Your task to perform on an android device: turn on priority inbox in the gmail app Image 0: 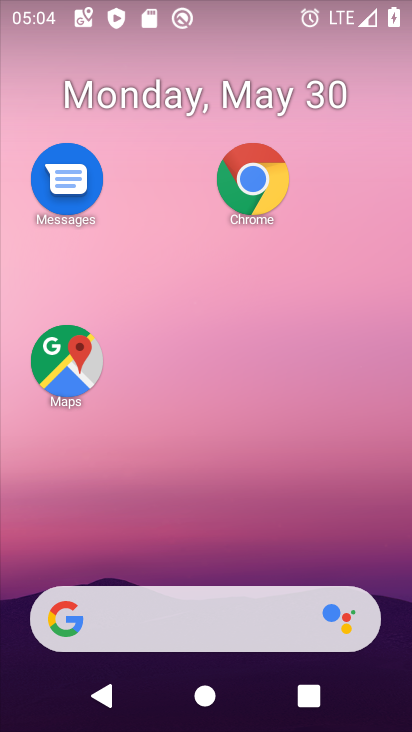
Step 0: drag from (178, 530) to (182, 34)
Your task to perform on an android device: turn on priority inbox in the gmail app Image 1: 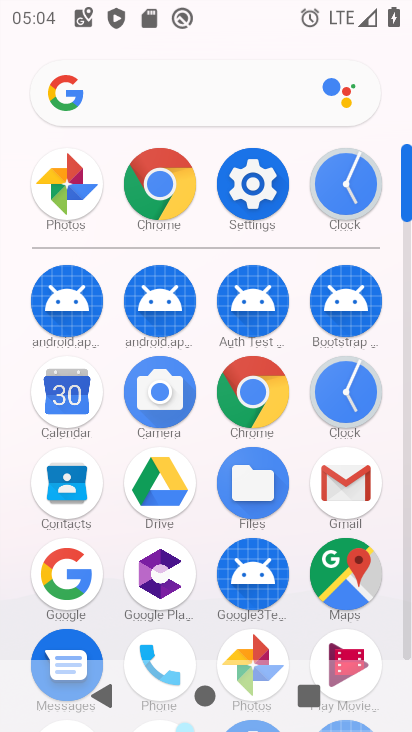
Step 1: click (354, 478)
Your task to perform on an android device: turn on priority inbox in the gmail app Image 2: 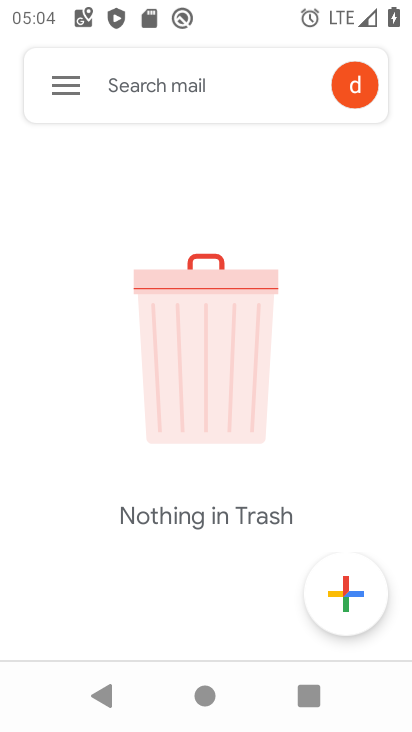
Step 2: click (69, 77)
Your task to perform on an android device: turn on priority inbox in the gmail app Image 3: 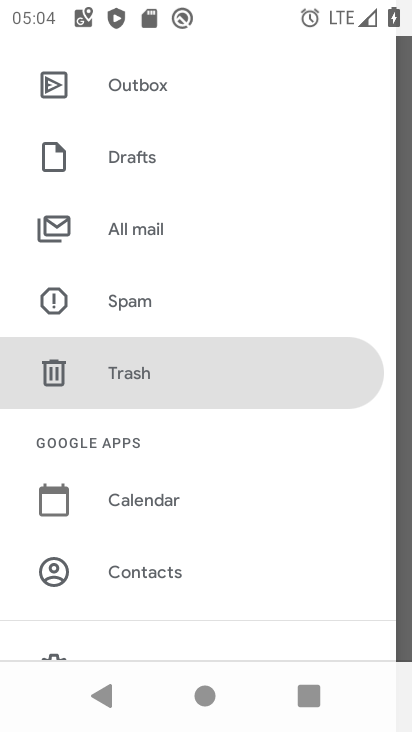
Step 3: drag from (191, 266) to (180, 685)
Your task to perform on an android device: turn on priority inbox in the gmail app Image 4: 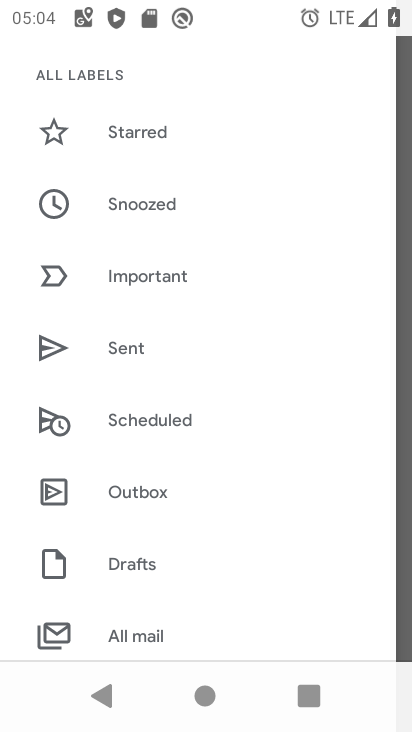
Step 4: drag from (183, 627) to (162, 293)
Your task to perform on an android device: turn on priority inbox in the gmail app Image 5: 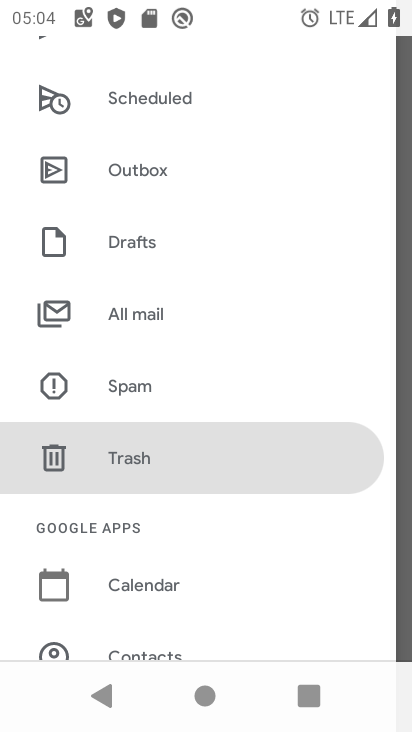
Step 5: drag from (161, 604) to (215, 171)
Your task to perform on an android device: turn on priority inbox in the gmail app Image 6: 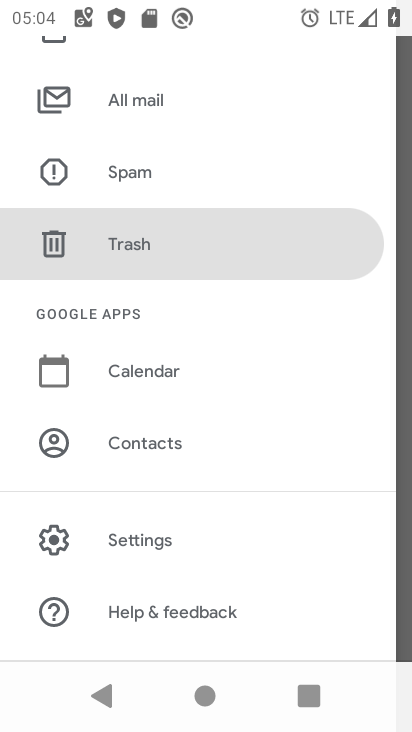
Step 6: click (148, 533)
Your task to perform on an android device: turn on priority inbox in the gmail app Image 7: 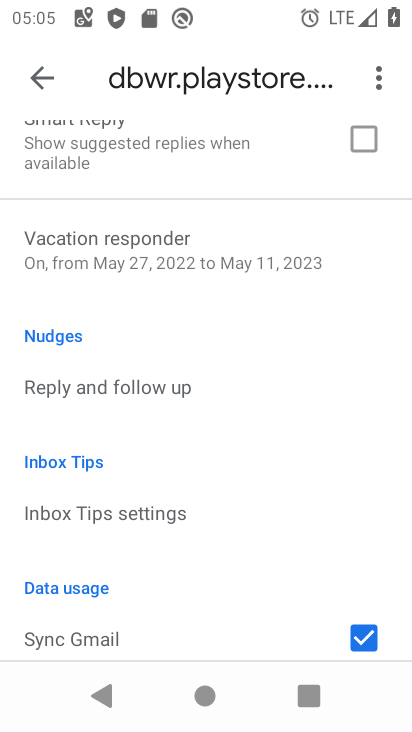
Step 7: drag from (123, 271) to (117, 719)
Your task to perform on an android device: turn on priority inbox in the gmail app Image 8: 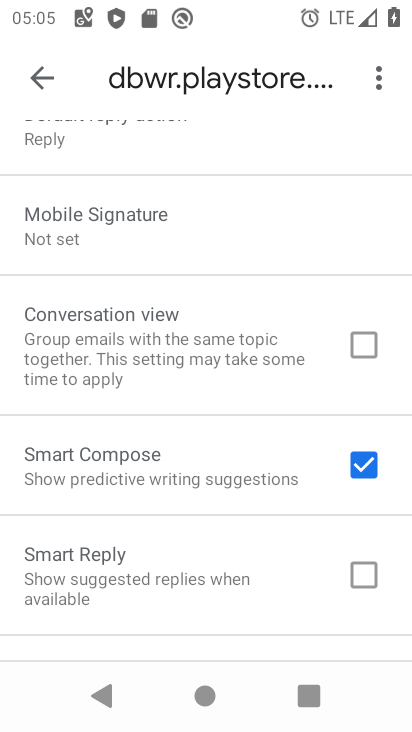
Step 8: drag from (206, 263) to (187, 728)
Your task to perform on an android device: turn on priority inbox in the gmail app Image 9: 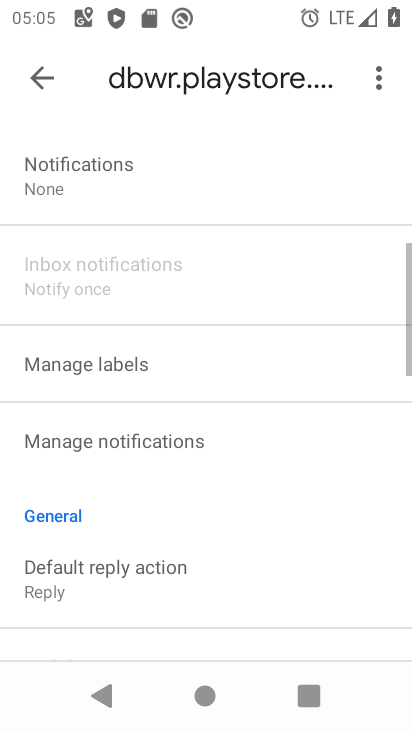
Step 9: drag from (155, 261) to (123, 721)
Your task to perform on an android device: turn on priority inbox in the gmail app Image 10: 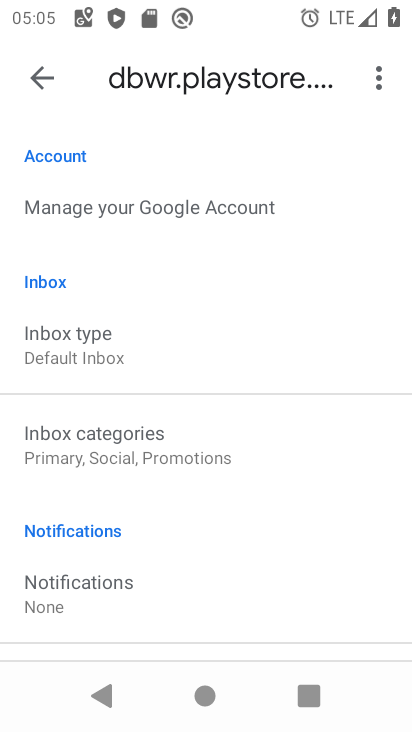
Step 10: click (74, 346)
Your task to perform on an android device: turn on priority inbox in the gmail app Image 11: 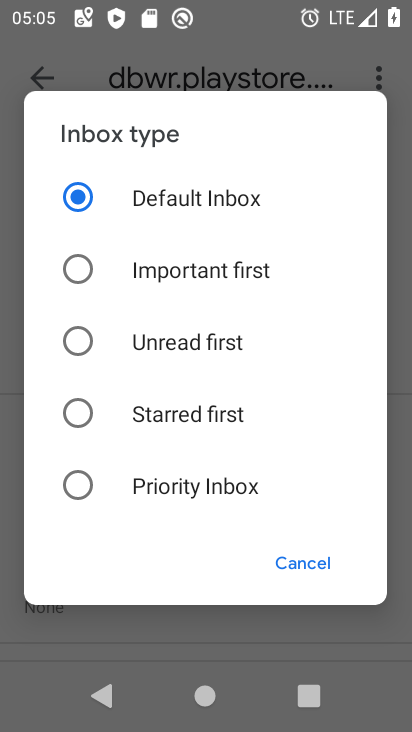
Step 11: click (89, 485)
Your task to perform on an android device: turn on priority inbox in the gmail app Image 12: 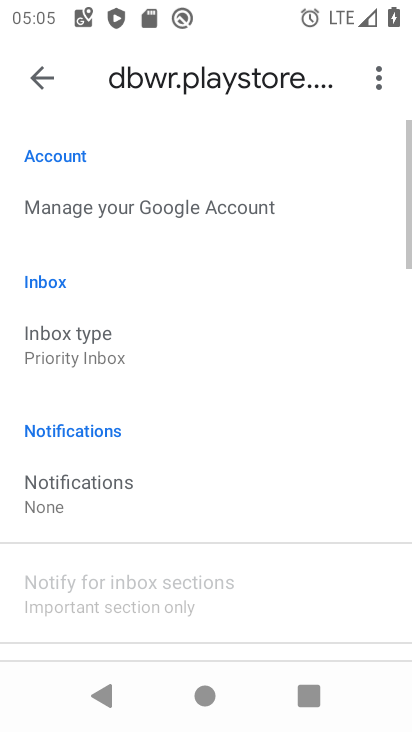
Step 12: task complete